Your task to perform on an android device: empty trash in the gmail app Image 0: 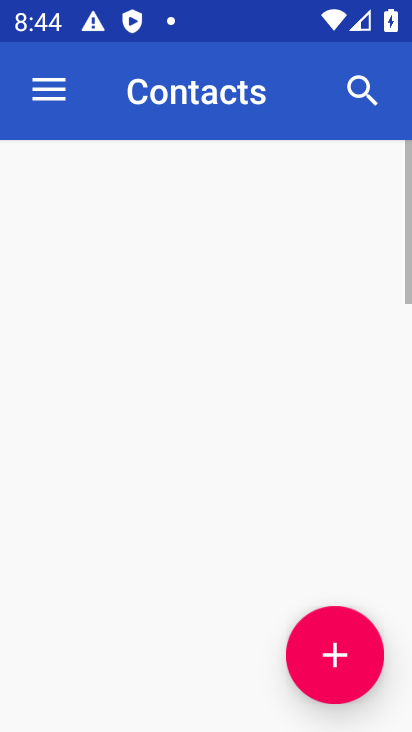
Step 0: drag from (203, 582) to (271, 158)
Your task to perform on an android device: empty trash in the gmail app Image 1: 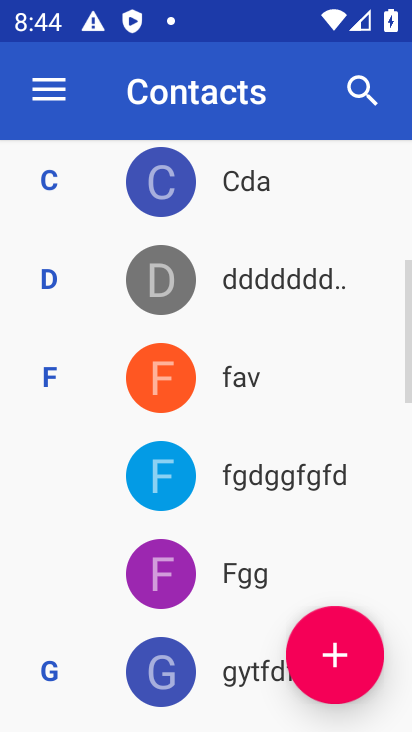
Step 1: press home button
Your task to perform on an android device: empty trash in the gmail app Image 2: 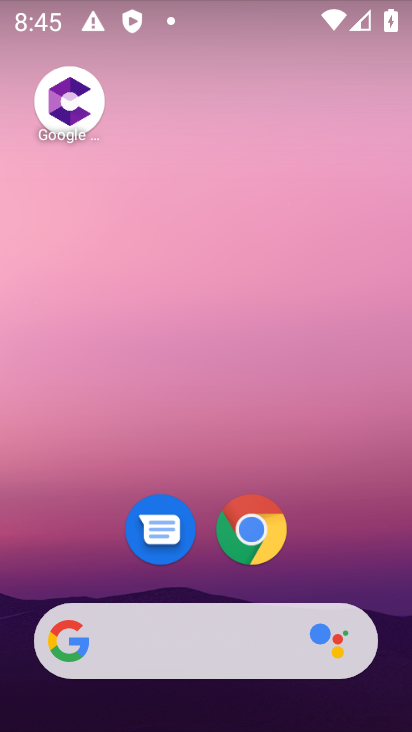
Step 2: drag from (207, 555) to (279, 35)
Your task to perform on an android device: empty trash in the gmail app Image 3: 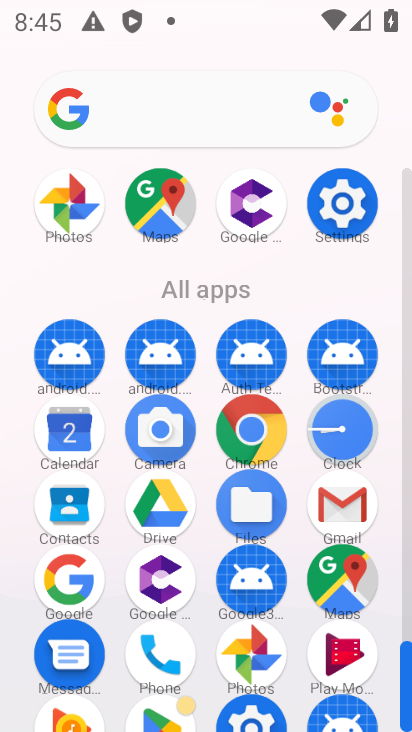
Step 3: click (342, 483)
Your task to perform on an android device: empty trash in the gmail app Image 4: 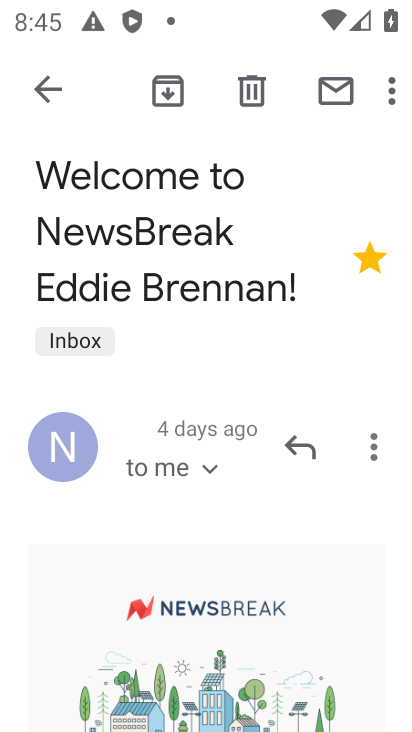
Step 4: press back button
Your task to perform on an android device: empty trash in the gmail app Image 5: 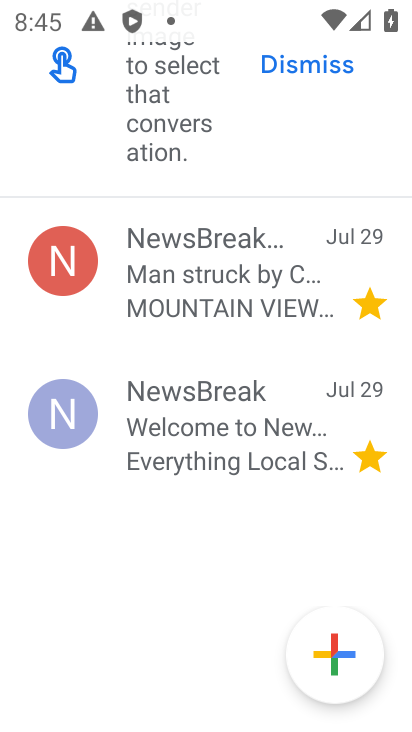
Step 5: drag from (231, 312) to (254, 723)
Your task to perform on an android device: empty trash in the gmail app Image 6: 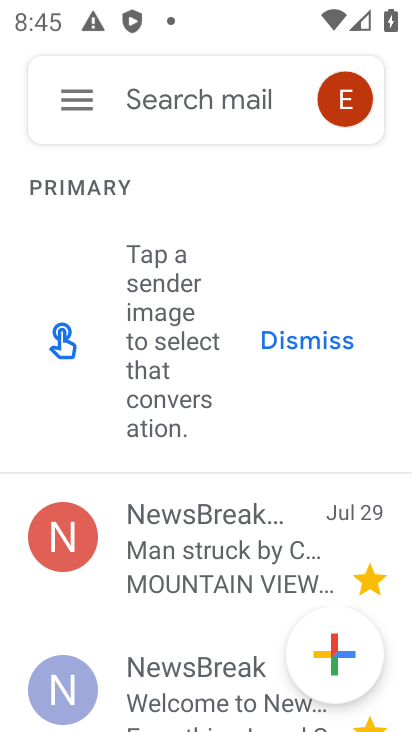
Step 6: click (71, 96)
Your task to perform on an android device: empty trash in the gmail app Image 7: 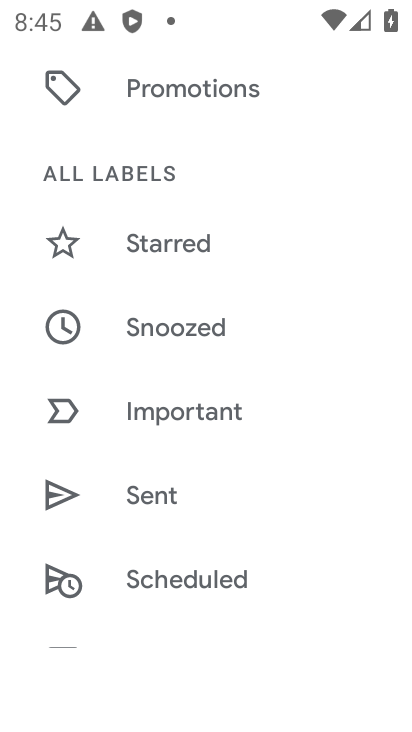
Step 7: drag from (204, 579) to (258, 242)
Your task to perform on an android device: empty trash in the gmail app Image 8: 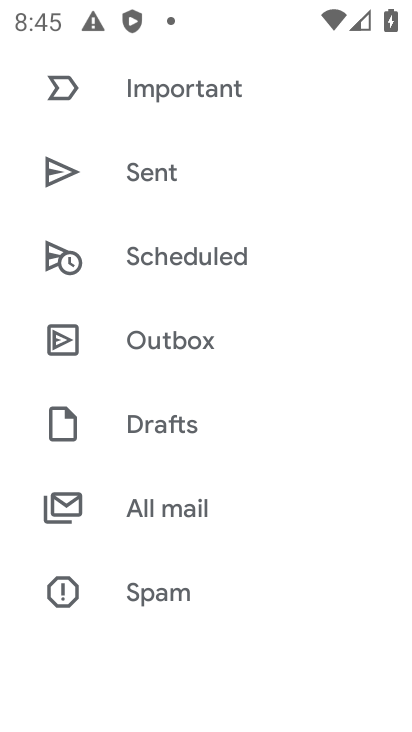
Step 8: drag from (193, 537) to (262, 176)
Your task to perform on an android device: empty trash in the gmail app Image 9: 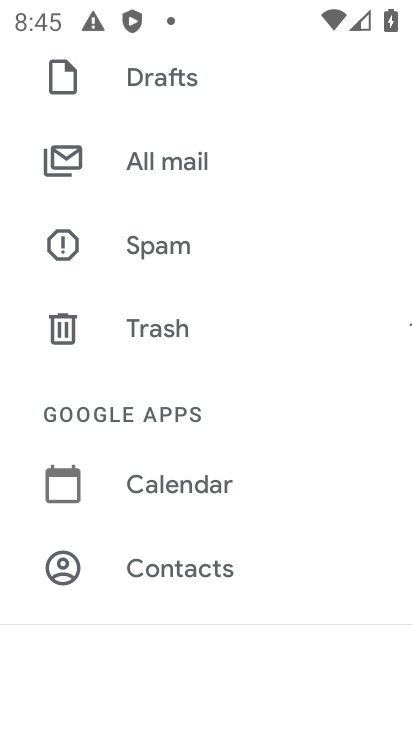
Step 9: click (181, 330)
Your task to perform on an android device: empty trash in the gmail app Image 10: 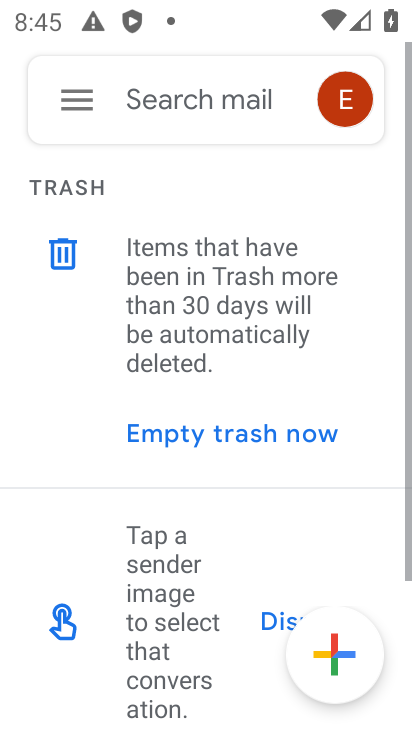
Step 10: drag from (183, 589) to (318, 261)
Your task to perform on an android device: empty trash in the gmail app Image 11: 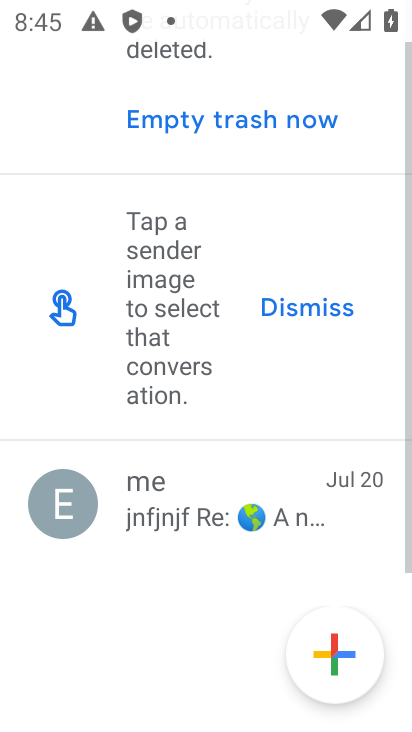
Step 11: drag from (305, 280) to (256, 651)
Your task to perform on an android device: empty trash in the gmail app Image 12: 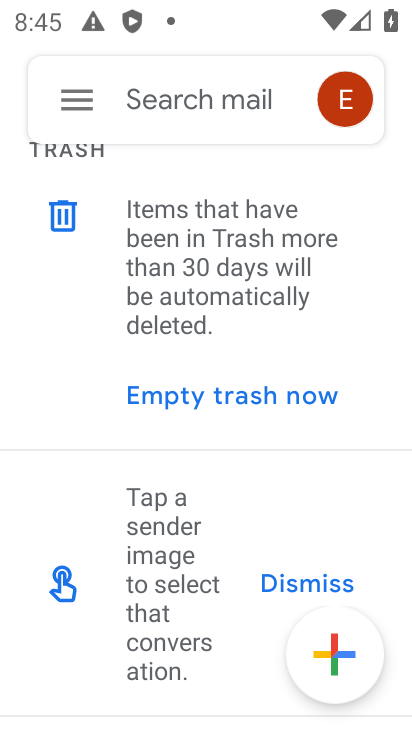
Step 12: click (231, 401)
Your task to perform on an android device: empty trash in the gmail app Image 13: 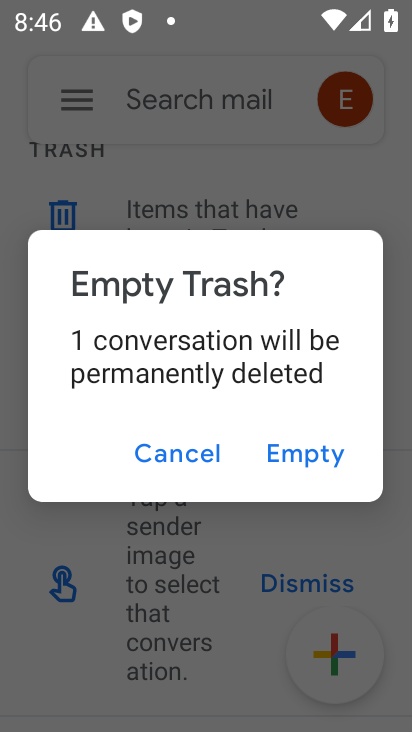
Step 13: click (316, 460)
Your task to perform on an android device: empty trash in the gmail app Image 14: 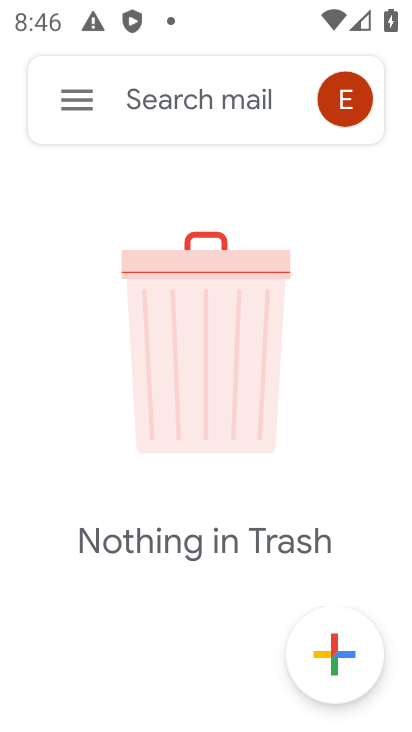
Step 14: task complete